Your task to perform on an android device: Go to Google Image 0: 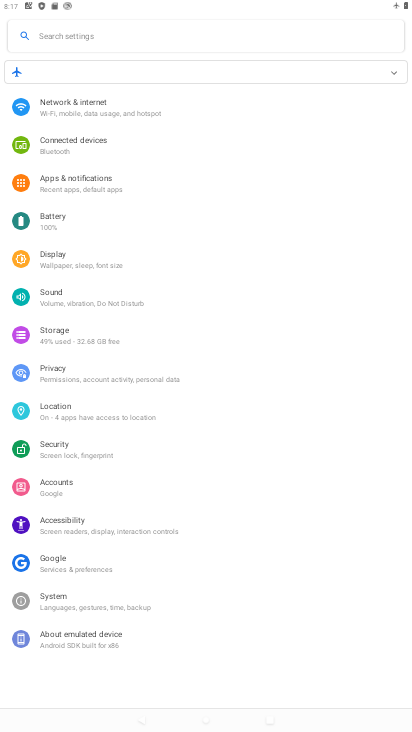
Step 0: press back button
Your task to perform on an android device: Go to Google Image 1: 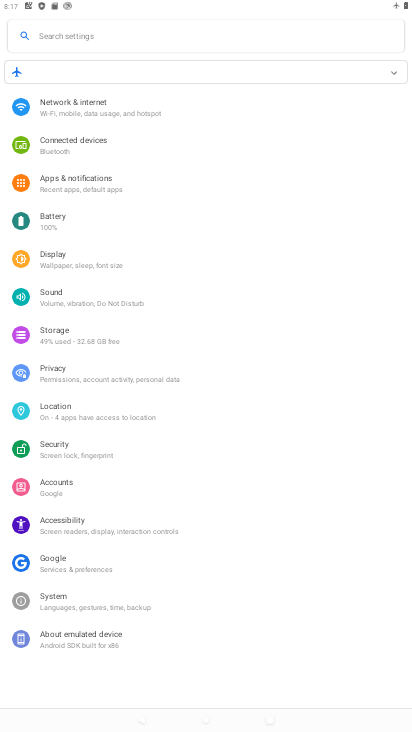
Step 1: press back button
Your task to perform on an android device: Go to Google Image 2: 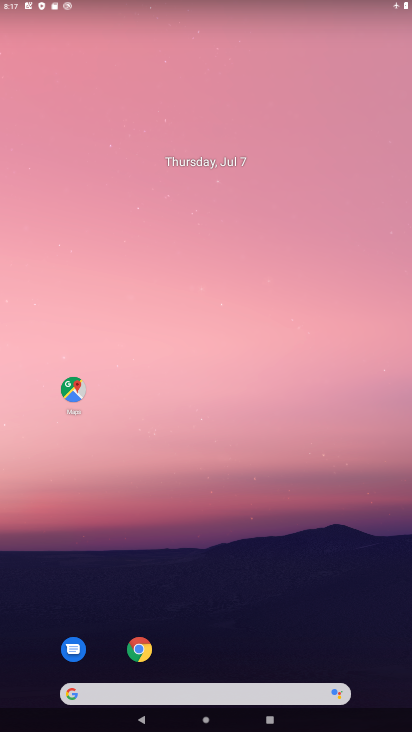
Step 2: drag from (205, 634) to (180, 252)
Your task to perform on an android device: Go to Google Image 3: 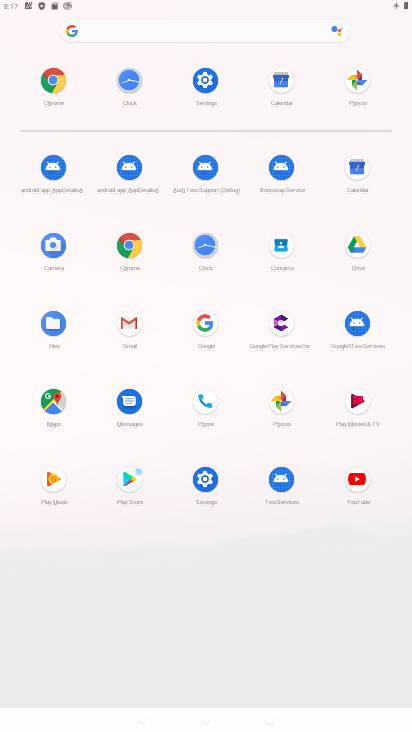
Step 3: click (208, 322)
Your task to perform on an android device: Go to Google Image 4: 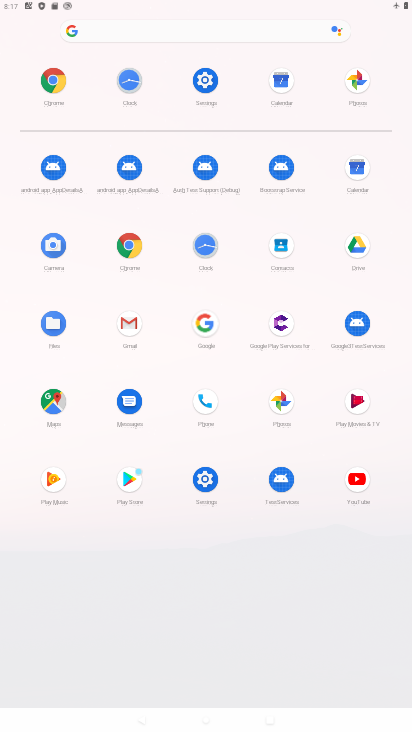
Step 4: click (211, 318)
Your task to perform on an android device: Go to Google Image 5: 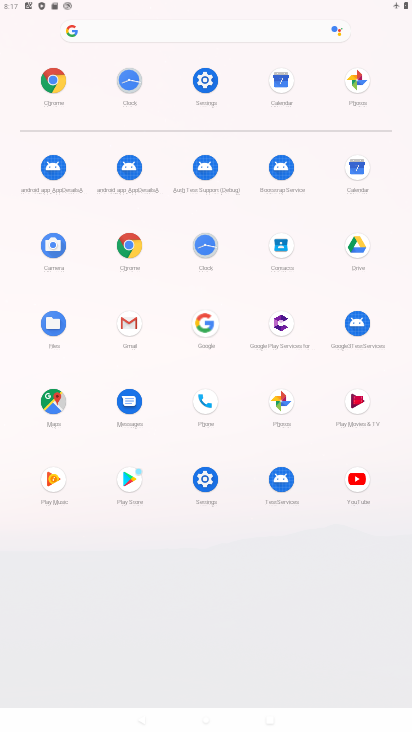
Step 5: click (214, 322)
Your task to perform on an android device: Go to Google Image 6: 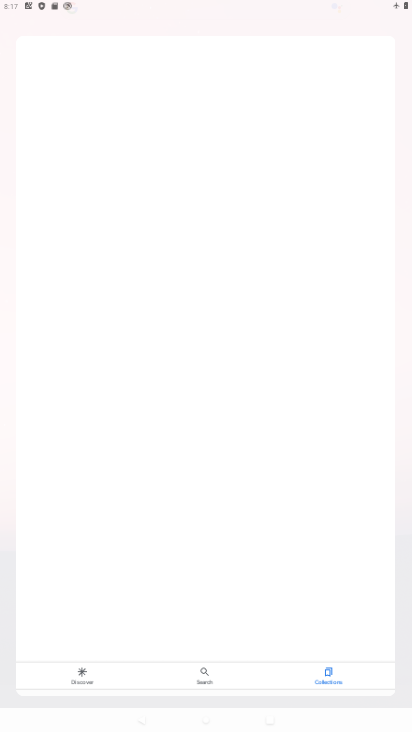
Step 6: click (214, 323)
Your task to perform on an android device: Go to Google Image 7: 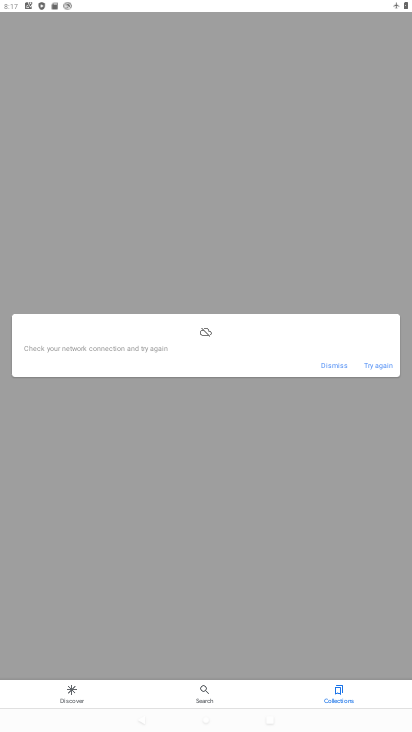
Step 7: click (377, 367)
Your task to perform on an android device: Go to Google Image 8: 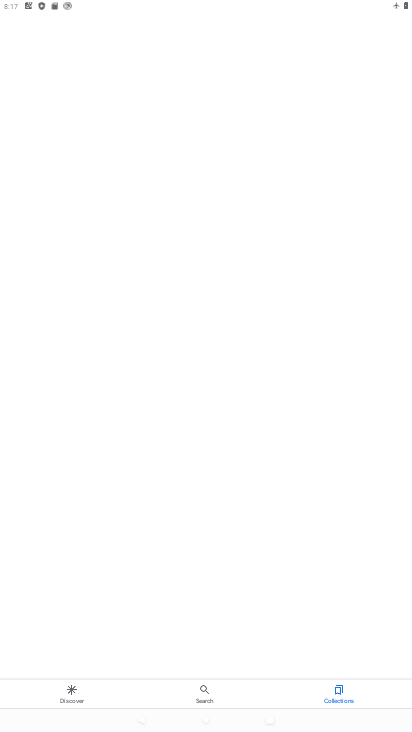
Step 8: click (273, 181)
Your task to perform on an android device: Go to Google Image 9: 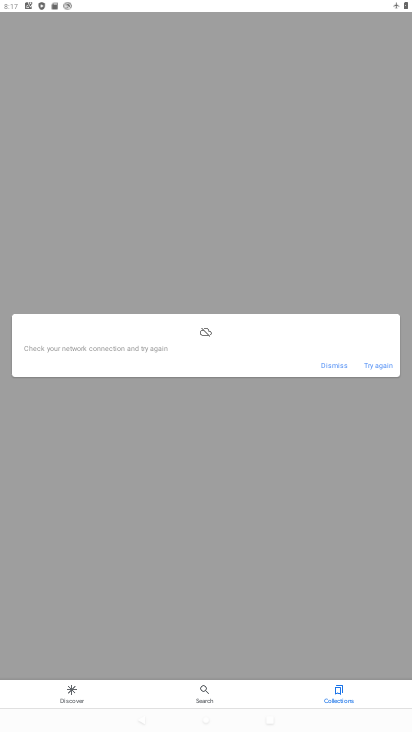
Step 9: click (273, 185)
Your task to perform on an android device: Go to Google Image 10: 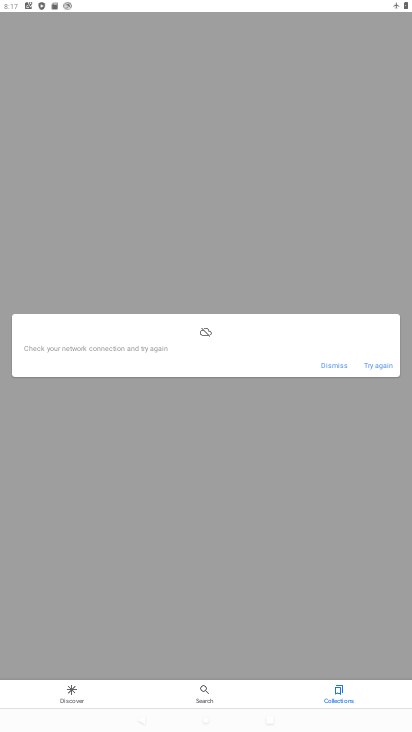
Step 10: click (275, 187)
Your task to perform on an android device: Go to Google Image 11: 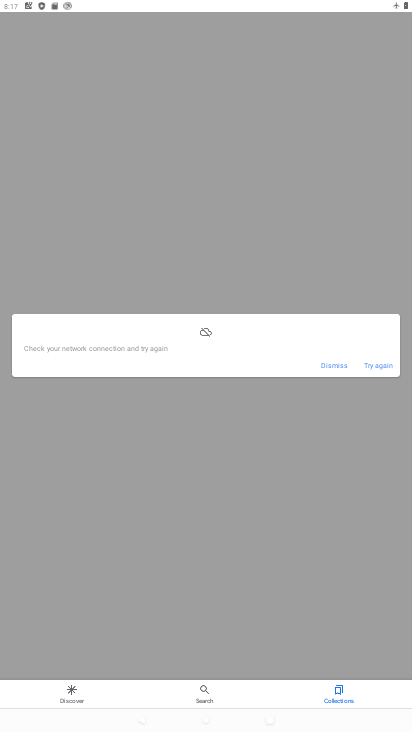
Step 11: click (321, 360)
Your task to perform on an android device: Go to Google Image 12: 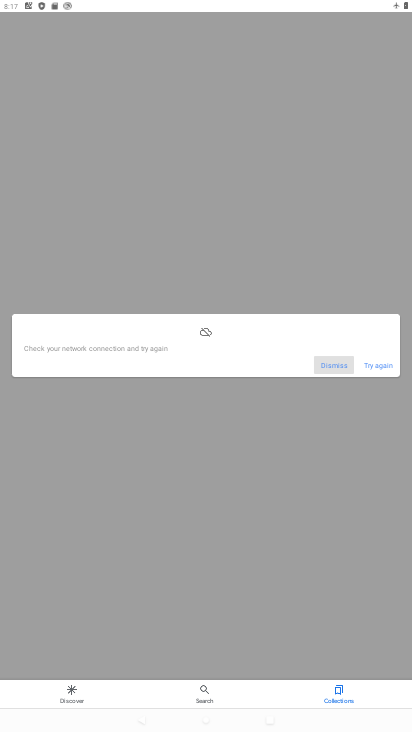
Step 12: click (327, 360)
Your task to perform on an android device: Go to Google Image 13: 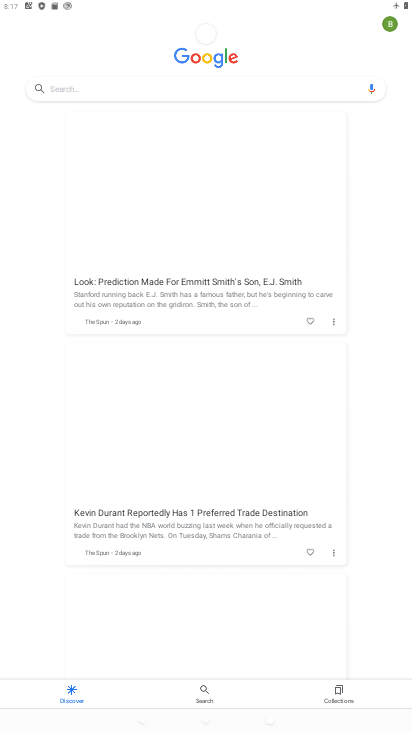
Step 13: click (331, 366)
Your task to perform on an android device: Go to Google Image 14: 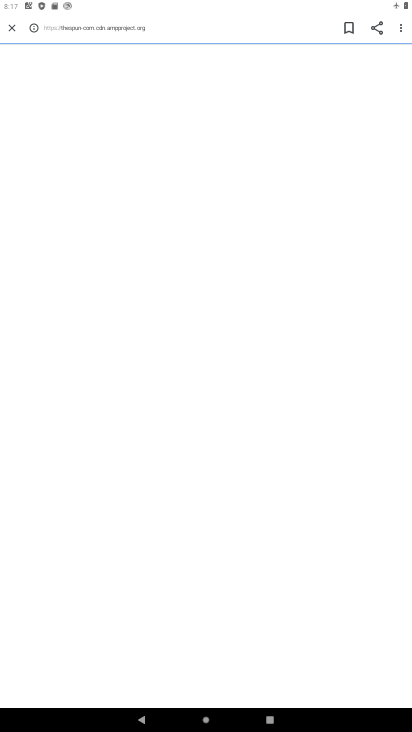
Step 14: task complete